Your task to perform on an android device: open a bookmark in the chrome app Image 0: 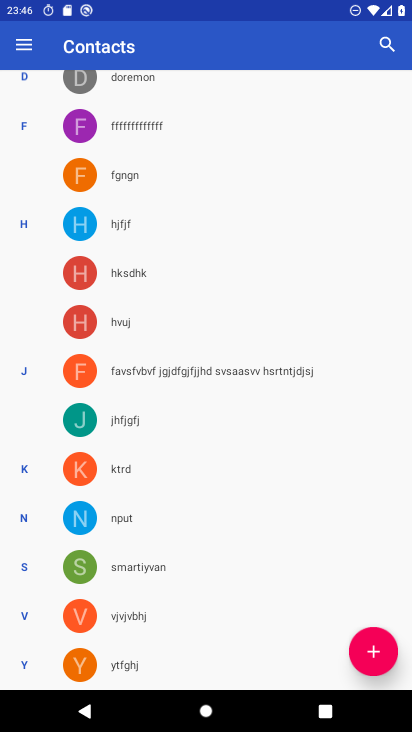
Step 0: press home button
Your task to perform on an android device: open a bookmark in the chrome app Image 1: 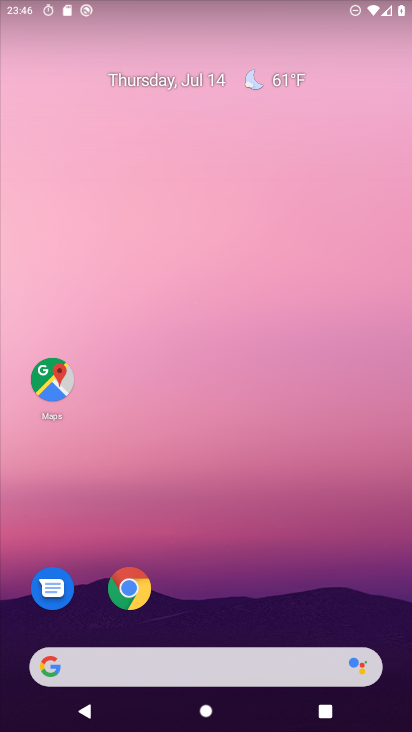
Step 1: click (132, 597)
Your task to perform on an android device: open a bookmark in the chrome app Image 2: 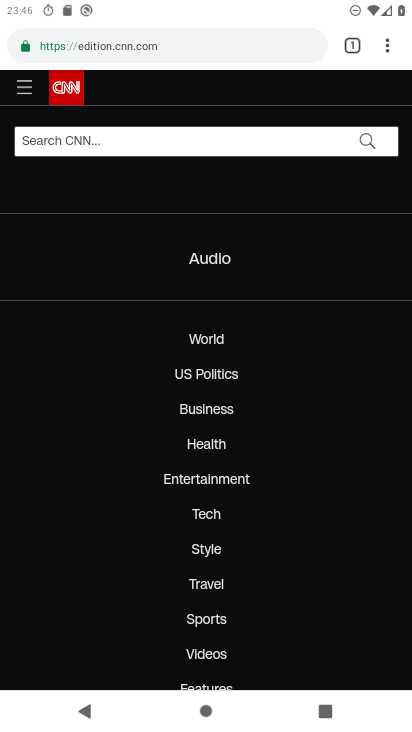
Step 2: click (389, 41)
Your task to perform on an android device: open a bookmark in the chrome app Image 3: 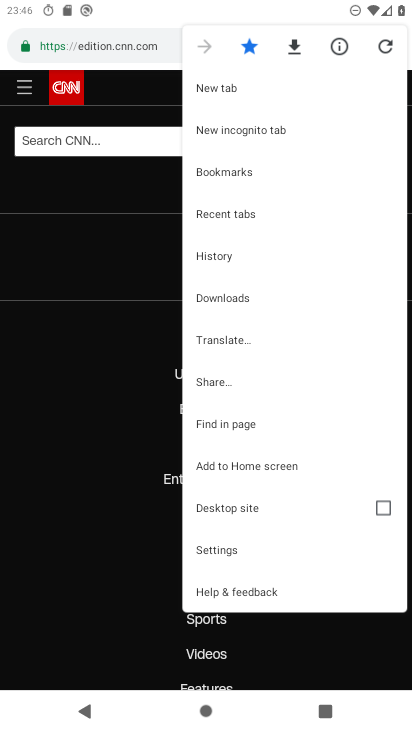
Step 3: click (244, 174)
Your task to perform on an android device: open a bookmark in the chrome app Image 4: 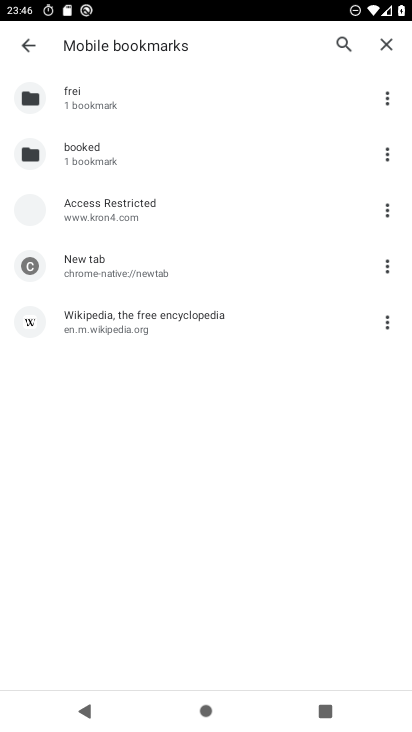
Step 4: click (128, 212)
Your task to perform on an android device: open a bookmark in the chrome app Image 5: 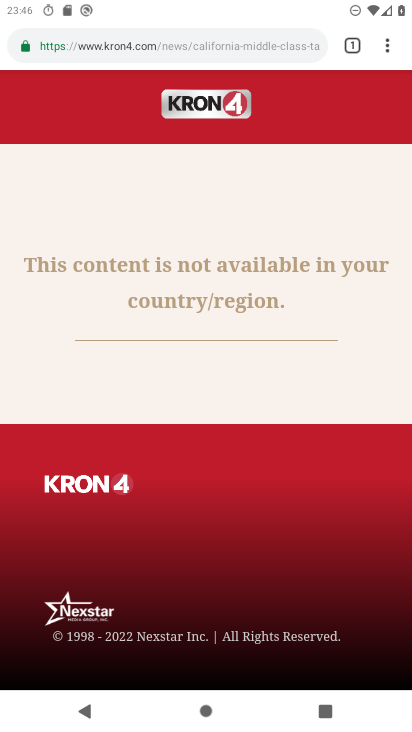
Step 5: task complete